Your task to perform on an android device: turn off location history Image 0: 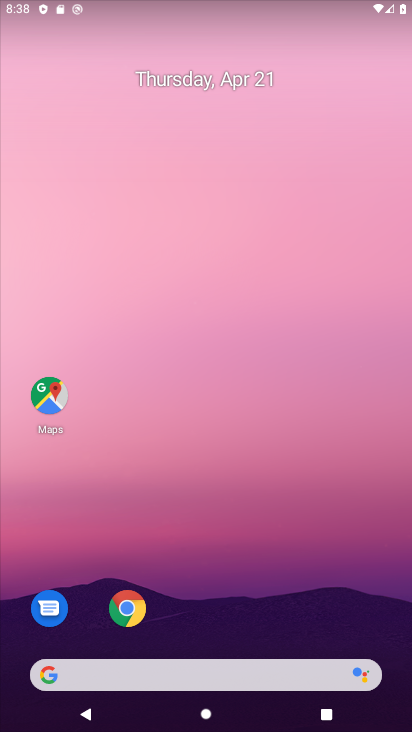
Step 0: drag from (230, 632) to (251, 127)
Your task to perform on an android device: turn off location history Image 1: 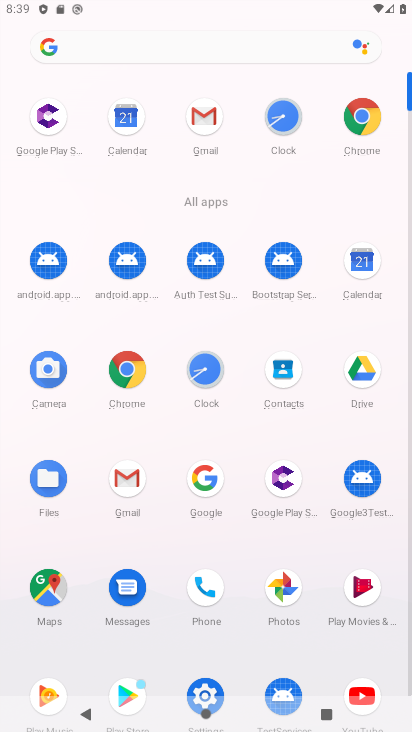
Step 1: click (42, 586)
Your task to perform on an android device: turn off location history Image 2: 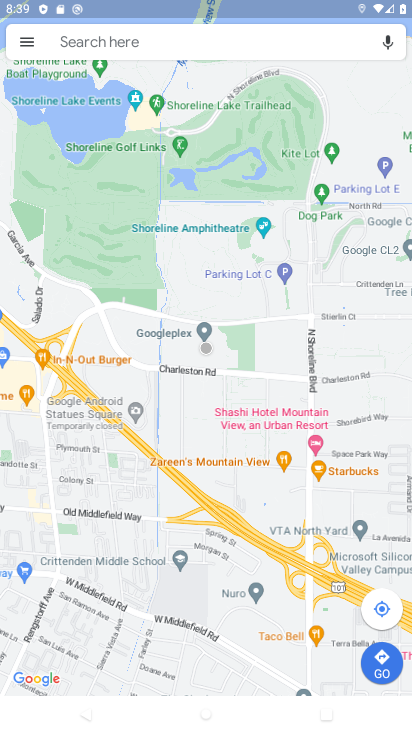
Step 2: click (29, 43)
Your task to perform on an android device: turn off location history Image 3: 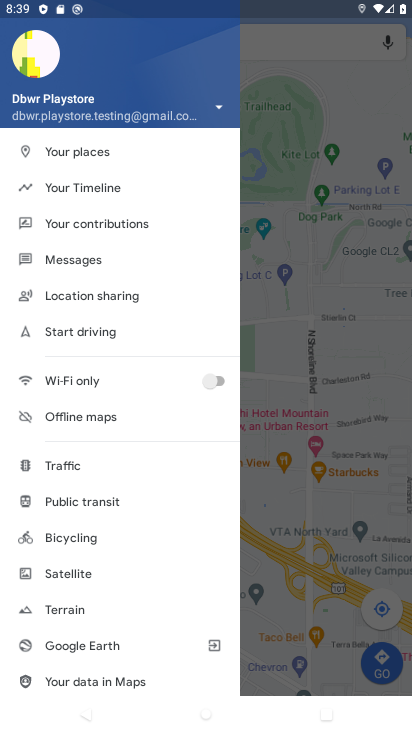
Step 3: click (124, 189)
Your task to perform on an android device: turn off location history Image 4: 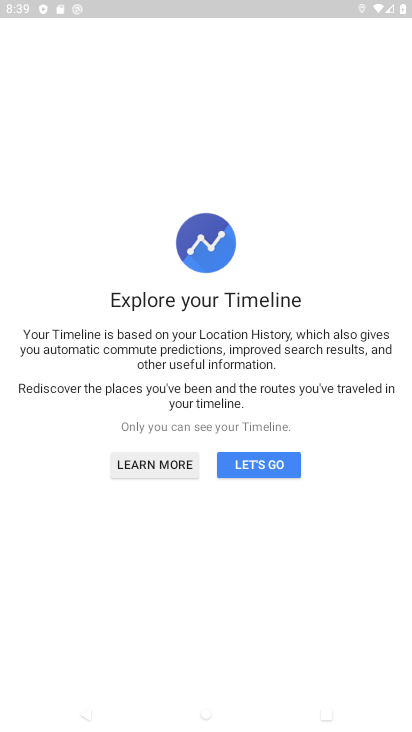
Step 4: click (262, 466)
Your task to perform on an android device: turn off location history Image 5: 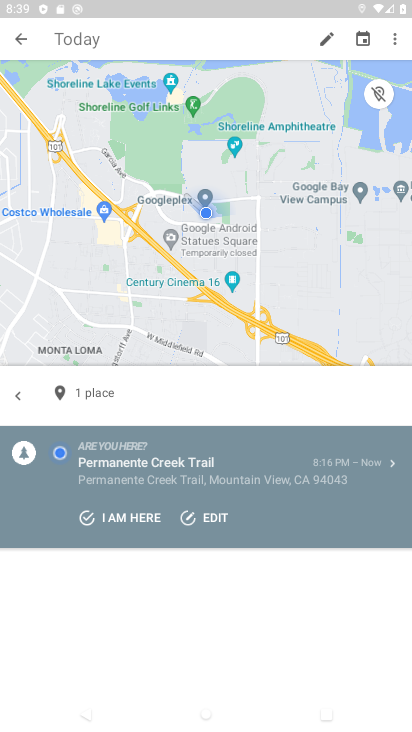
Step 5: click (394, 48)
Your task to perform on an android device: turn off location history Image 6: 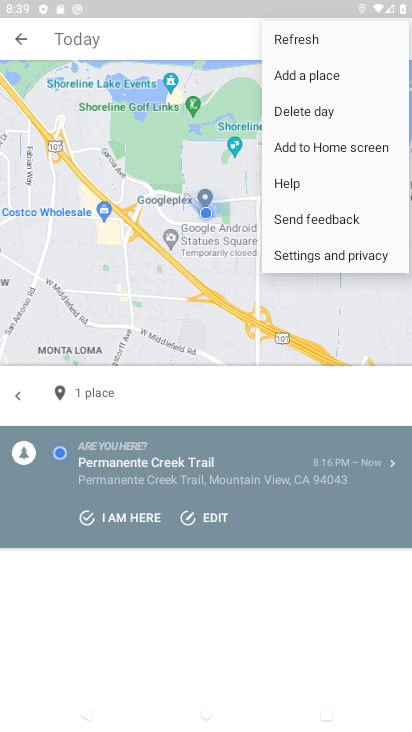
Step 6: click (349, 259)
Your task to perform on an android device: turn off location history Image 7: 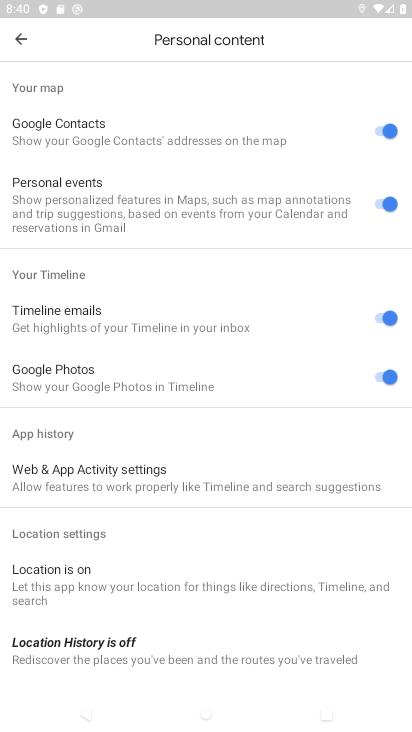
Step 7: click (260, 666)
Your task to perform on an android device: turn off location history Image 8: 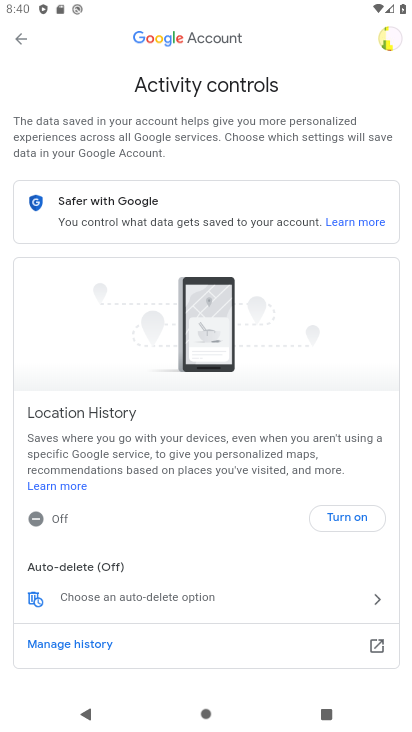
Step 8: task complete